Your task to perform on an android device: turn off location history Image 0: 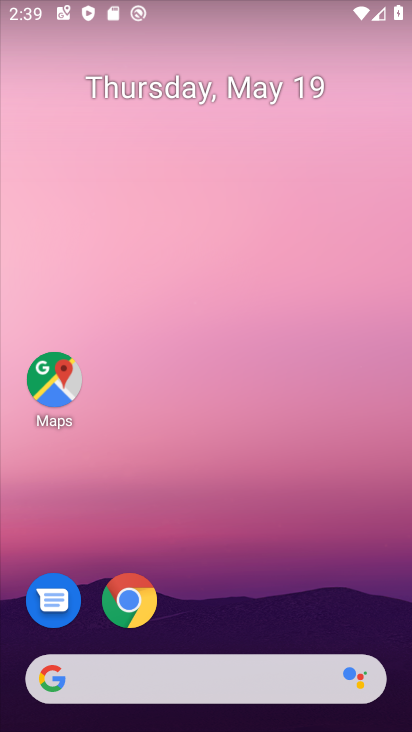
Step 0: drag from (397, 678) to (411, 102)
Your task to perform on an android device: turn off location history Image 1: 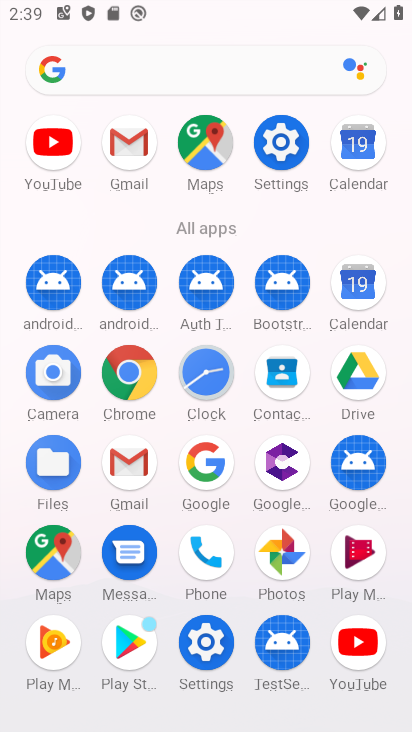
Step 1: click (278, 141)
Your task to perform on an android device: turn off location history Image 2: 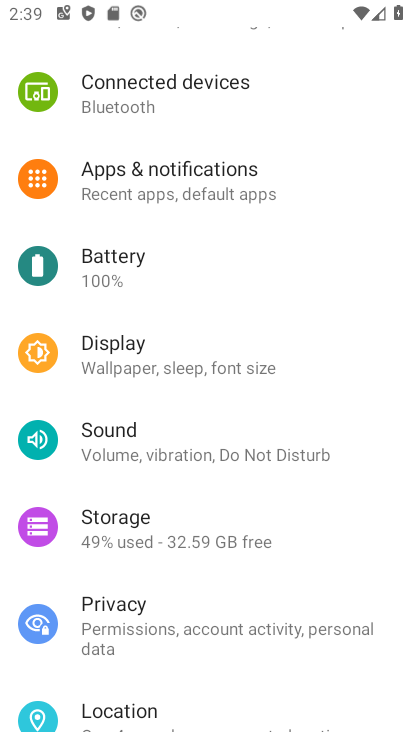
Step 2: click (135, 704)
Your task to perform on an android device: turn off location history Image 3: 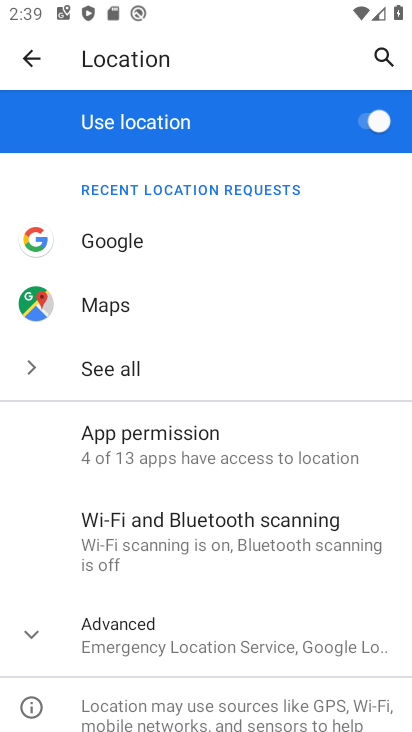
Step 3: click (29, 637)
Your task to perform on an android device: turn off location history Image 4: 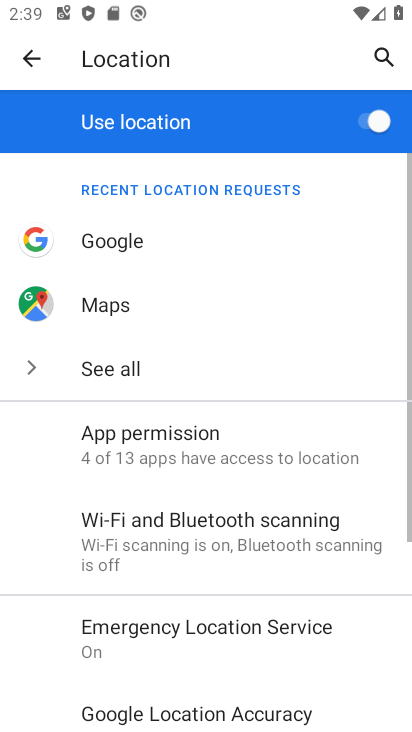
Step 4: drag from (319, 692) to (272, 278)
Your task to perform on an android device: turn off location history Image 5: 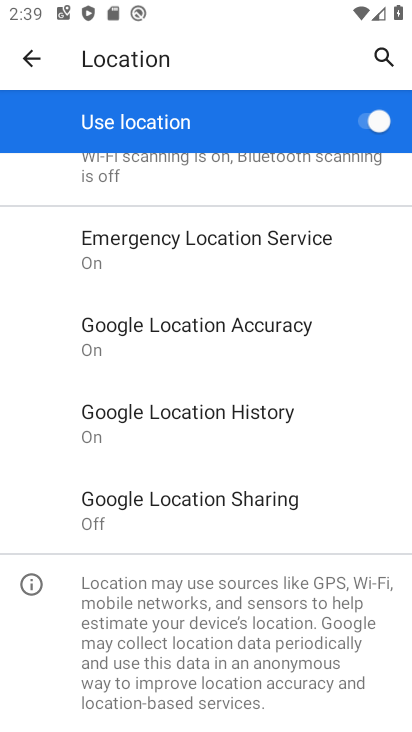
Step 5: click (235, 415)
Your task to perform on an android device: turn off location history Image 6: 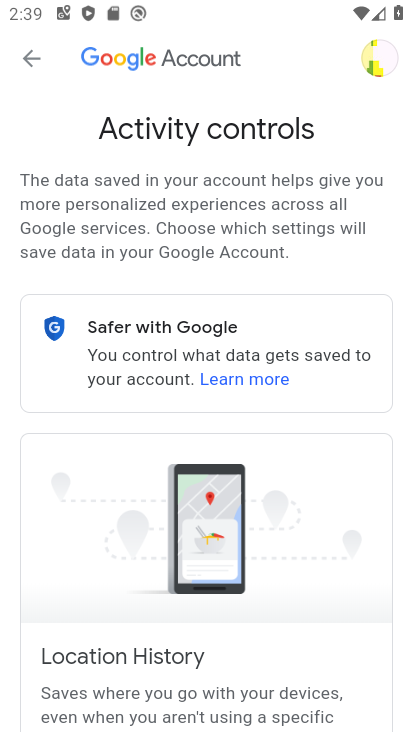
Step 6: drag from (342, 594) to (287, 206)
Your task to perform on an android device: turn off location history Image 7: 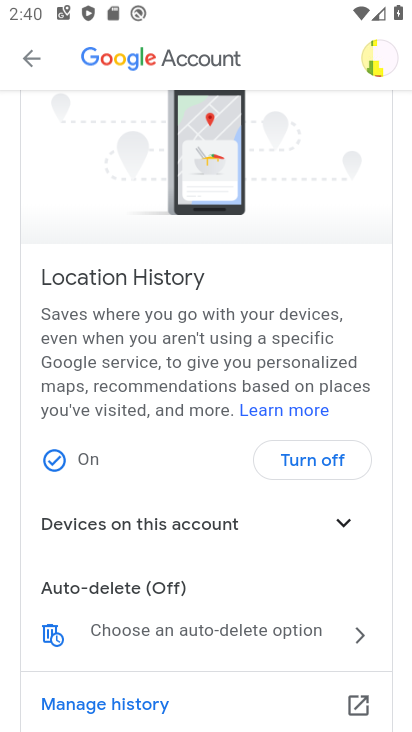
Step 7: click (320, 465)
Your task to perform on an android device: turn off location history Image 8: 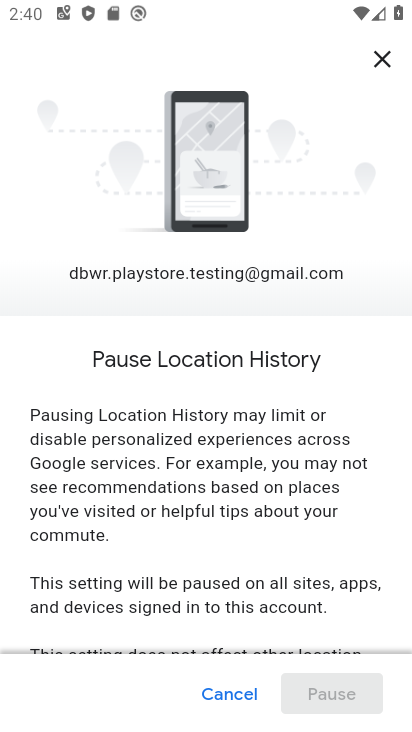
Step 8: drag from (288, 520) to (277, 203)
Your task to perform on an android device: turn off location history Image 9: 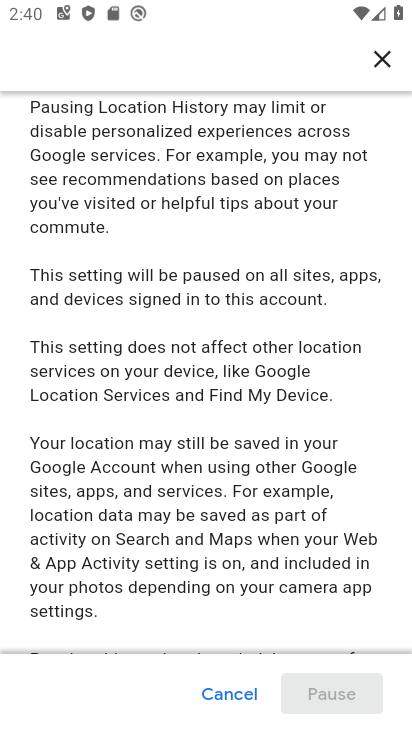
Step 9: drag from (290, 613) to (309, 379)
Your task to perform on an android device: turn off location history Image 10: 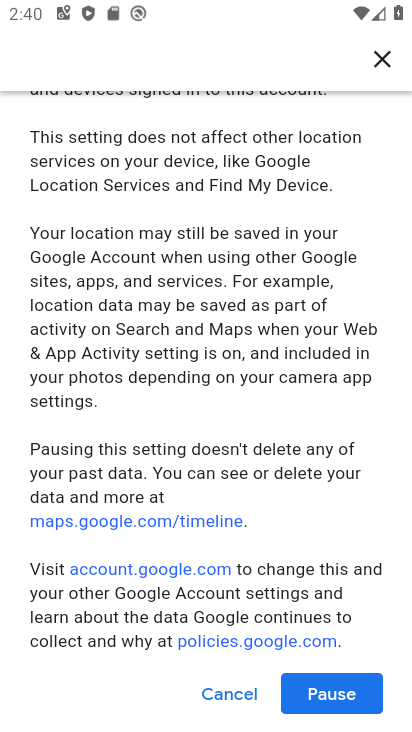
Step 10: click (321, 701)
Your task to perform on an android device: turn off location history Image 11: 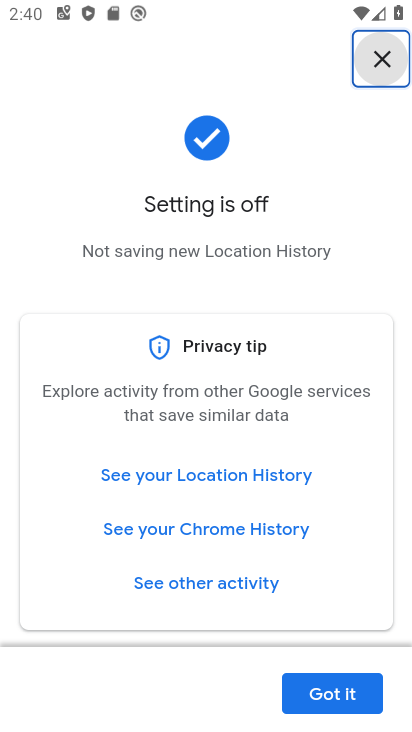
Step 11: click (328, 688)
Your task to perform on an android device: turn off location history Image 12: 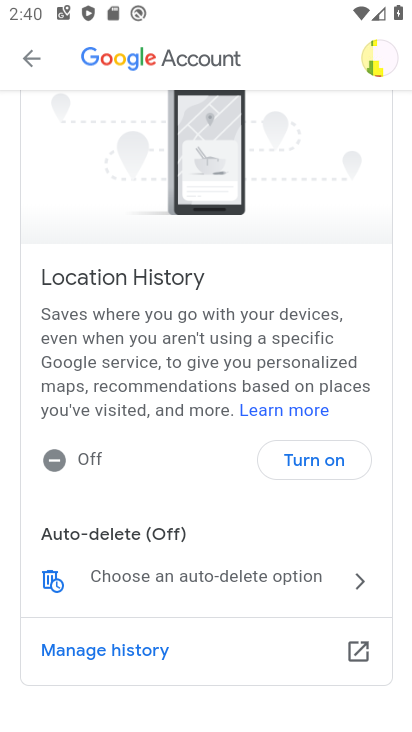
Step 12: task complete